Your task to perform on an android device: uninstall "Upside-Cash back on gas & food" Image 0: 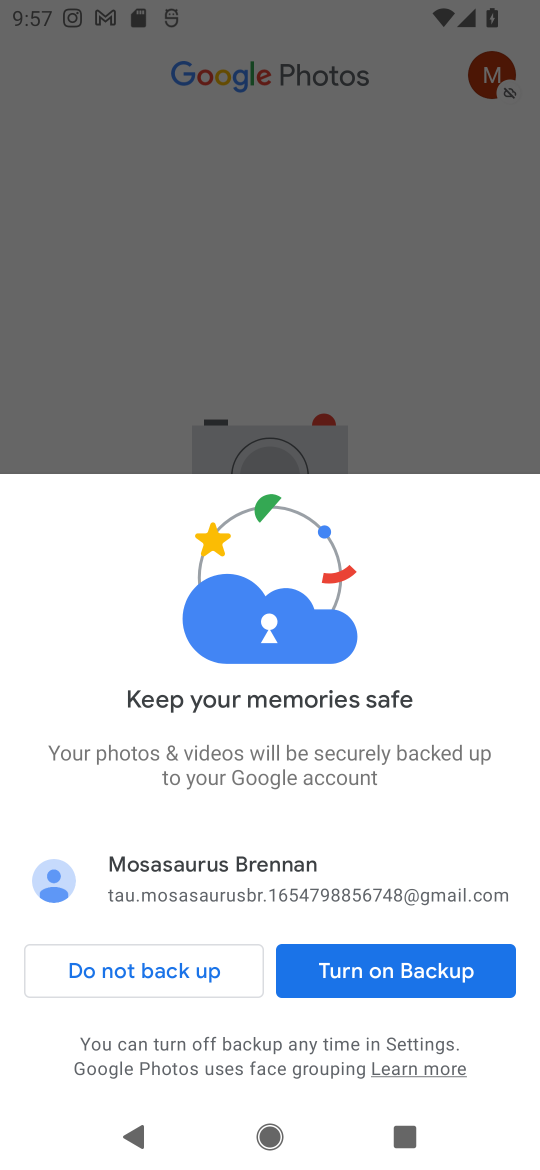
Step 0: press home button
Your task to perform on an android device: uninstall "Upside-Cash back on gas & food" Image 1: 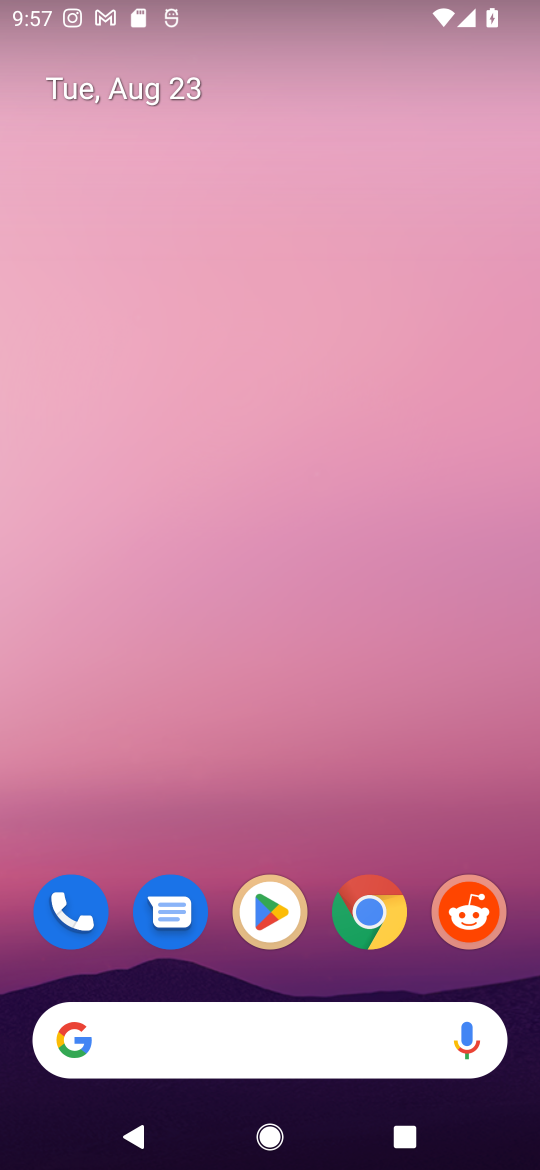
Step 1: click (263, 931)
Your task to perform on an android device: uninstall "Upside-Cash back on gas & food" Image 2: 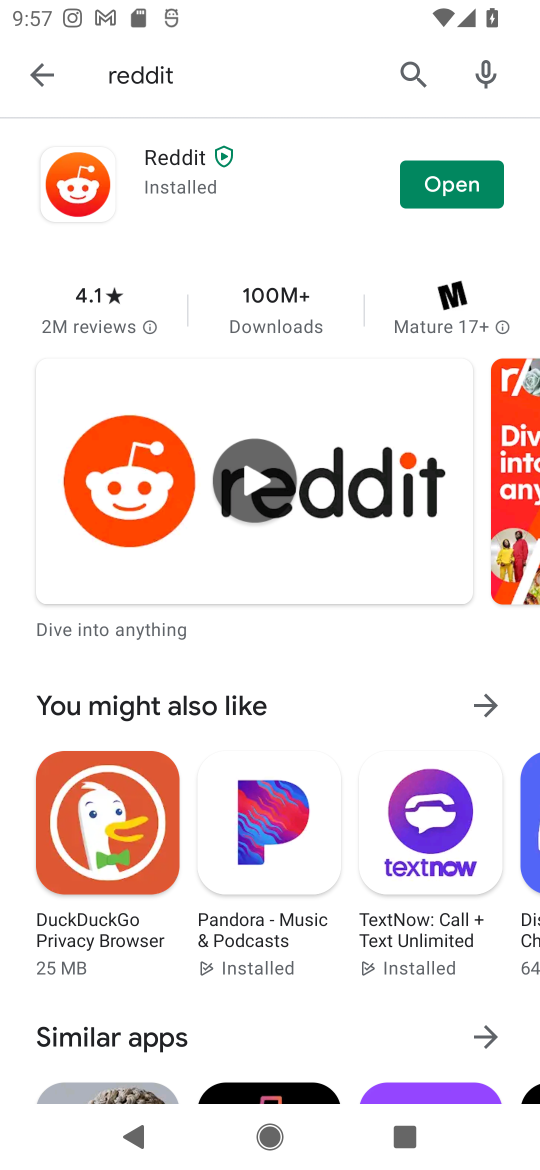
Step 2: click (411, 70)
Your task to perform on an android device: uninstall "Upside-Cash back on gas & food" Image 3: 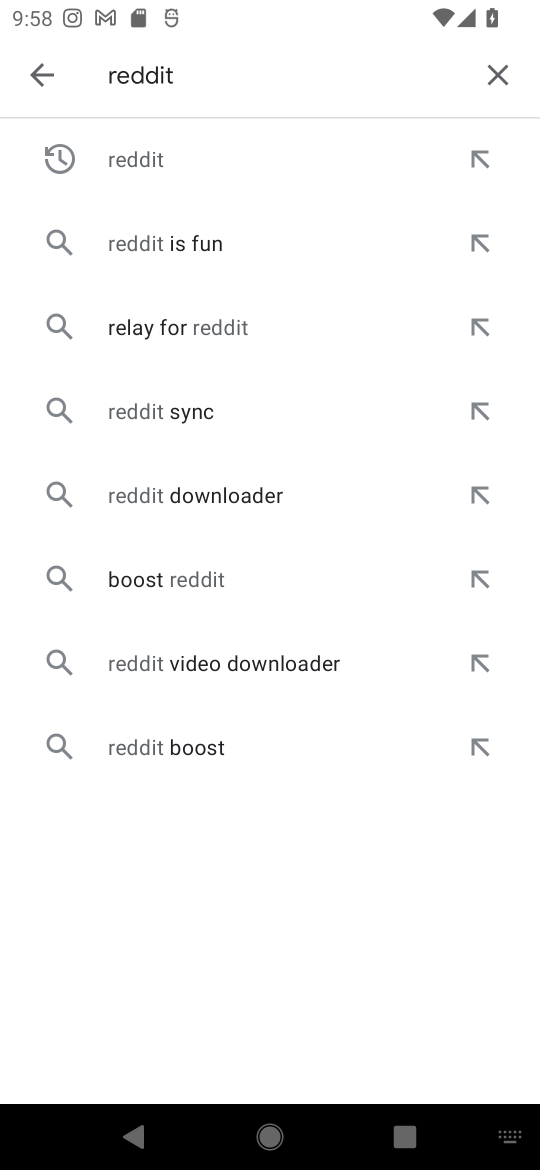
Step 3: click (489, 81)
Your task to perform on an android device: uninstall "Upside-Cash back on gas & food" Image 4: 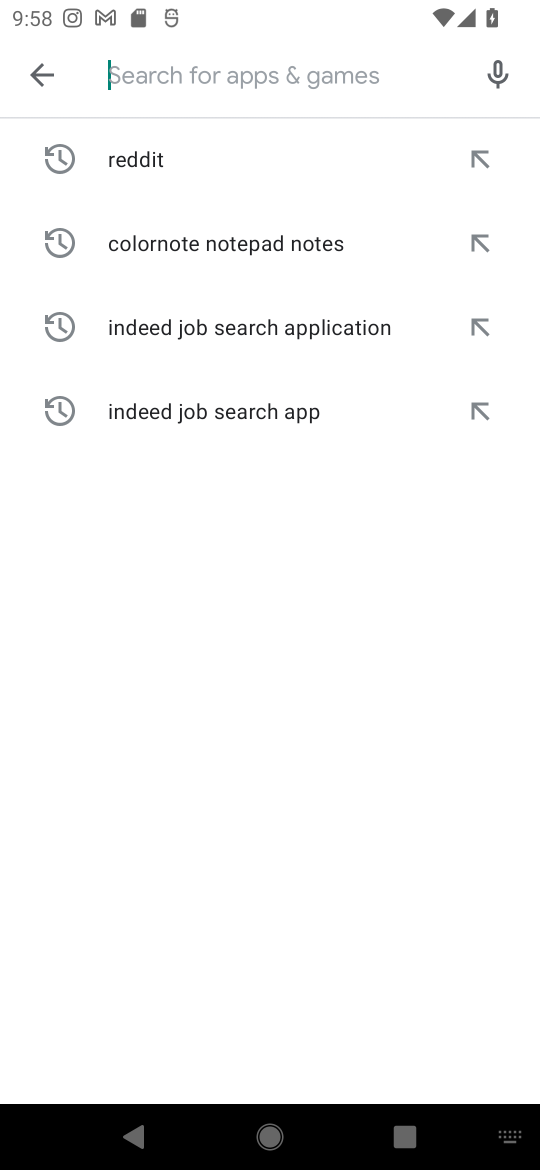
Step 4: type "Upside-Cash back on gas & food"
Your task to perform on an android device: uninstall "Upside-Cash back on gas & food" Image 5: 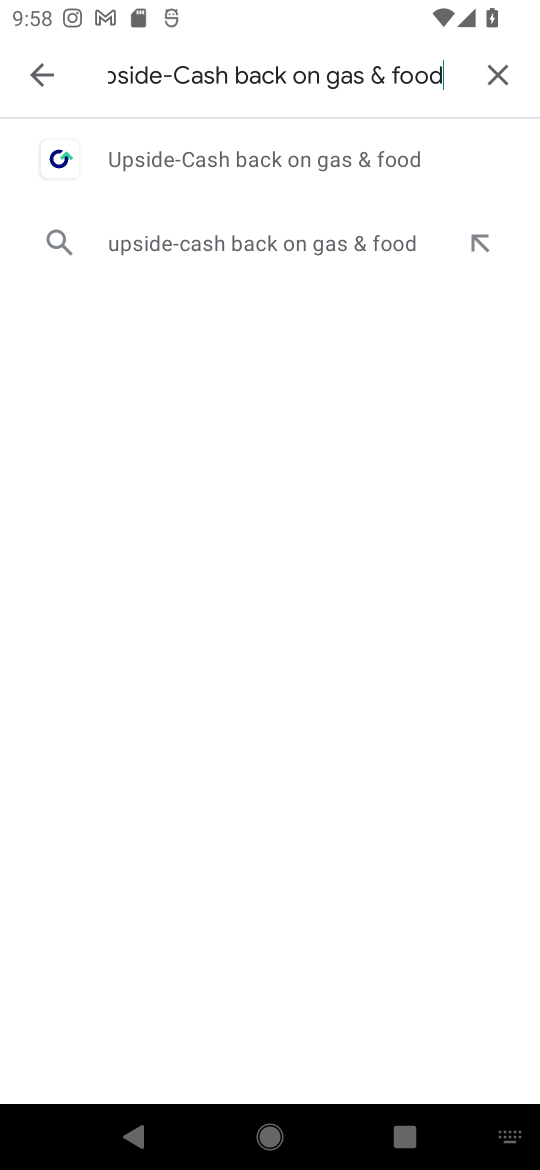
Step 5: click (371, 164)
Your task to perform on an android device: uninstall "Upside-Cash back on gas & food" Image 6: 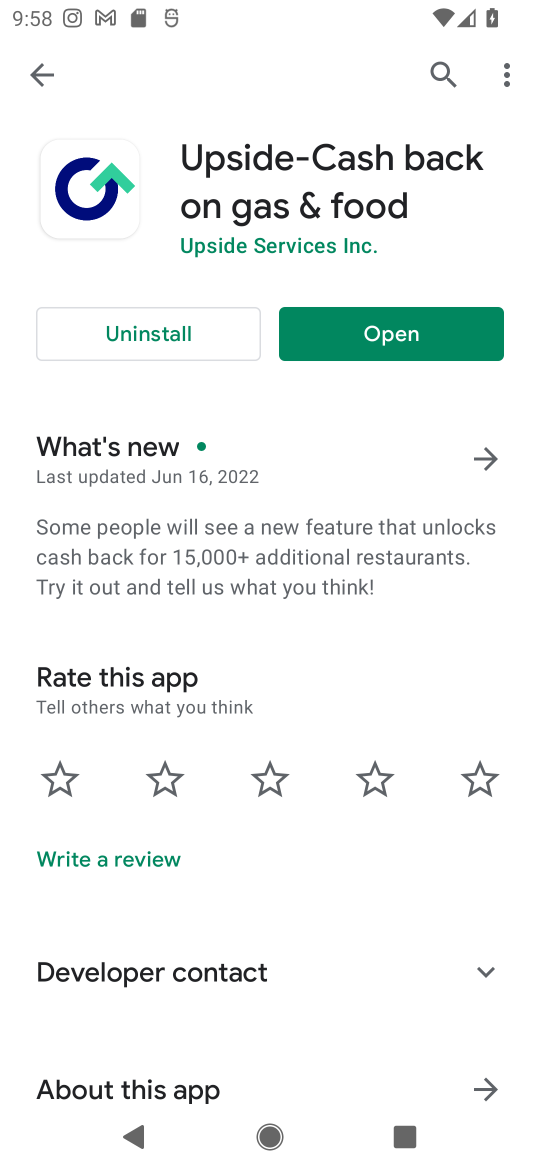
Step 6: click (171, 336)
Your task to perform on an android device: uninstall "Upside-Cash back on gas & food" Image 7: 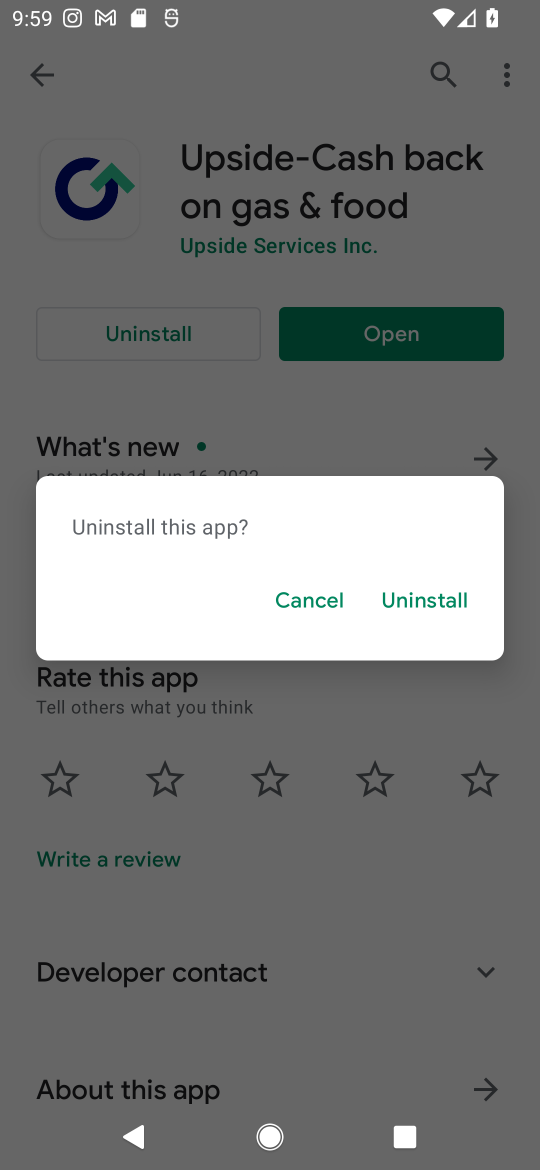
Step 7: click (436, 593)
Your task to perform on an android device: uninstall "Upside-Cash back on gas & food" Image 8: 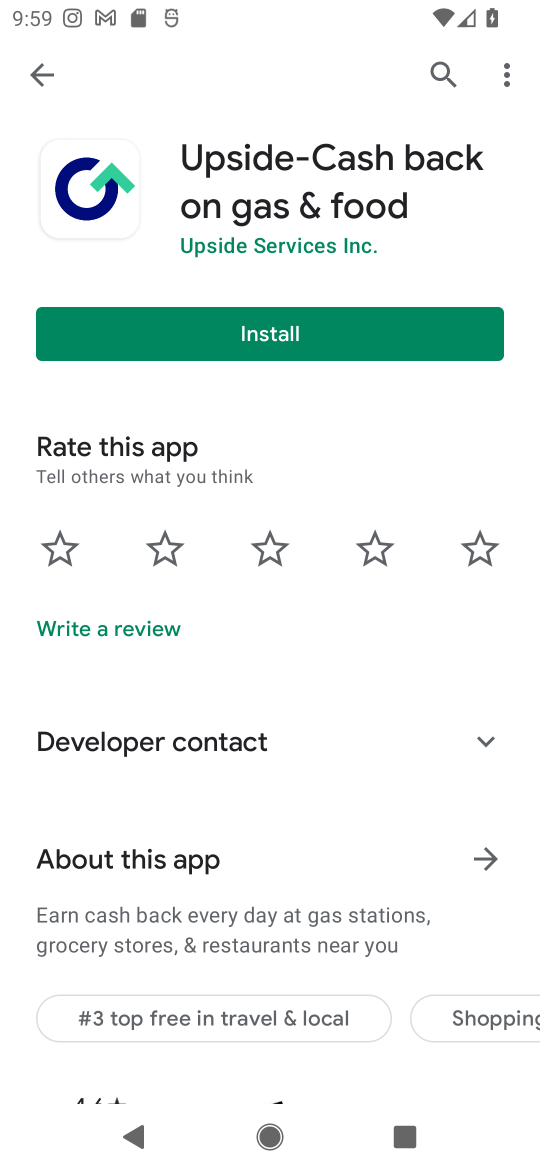
Step 8: task complete